Your task to perform on an android device: Go to settings Image 0: 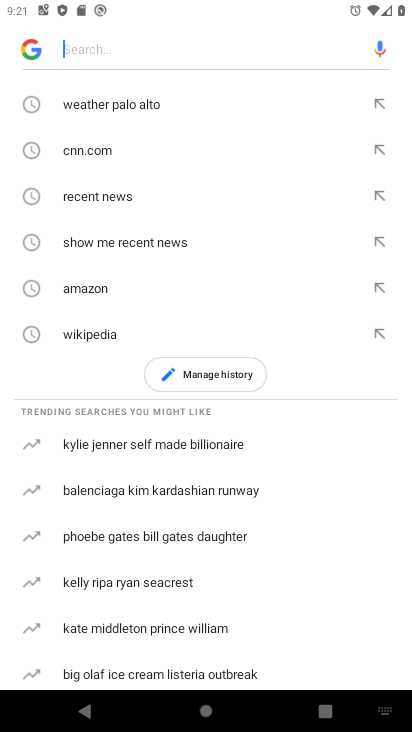
Step 0: press home button
Your task to perform on an android device: Go to settings Image 1: 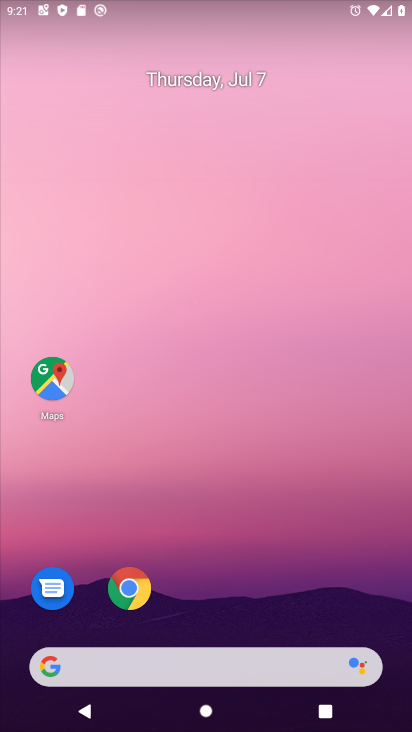
Step 1: drag from (213, 621) to (234, 46)
Your task to perform on an android device: Go to settings Image 2: 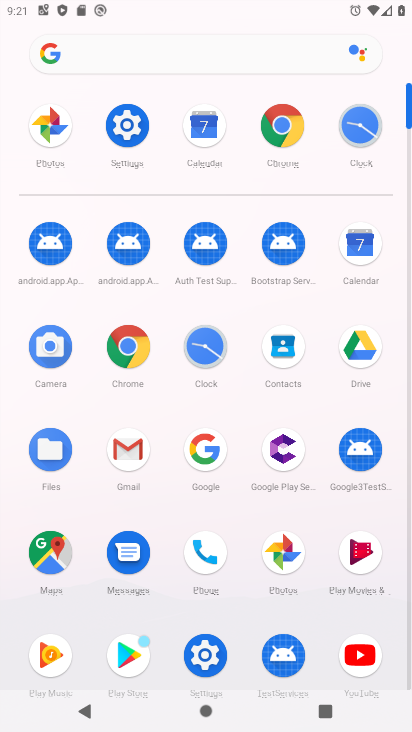
Step 2: click (122, 124)
Your task to perform on an android device: Go to settings Image 3: 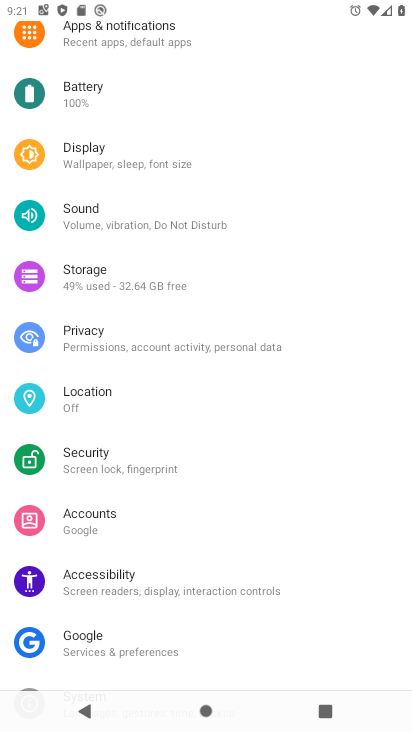
Step 3: task complete